Your task to perform on an android device: What's the weather today? Image 0: 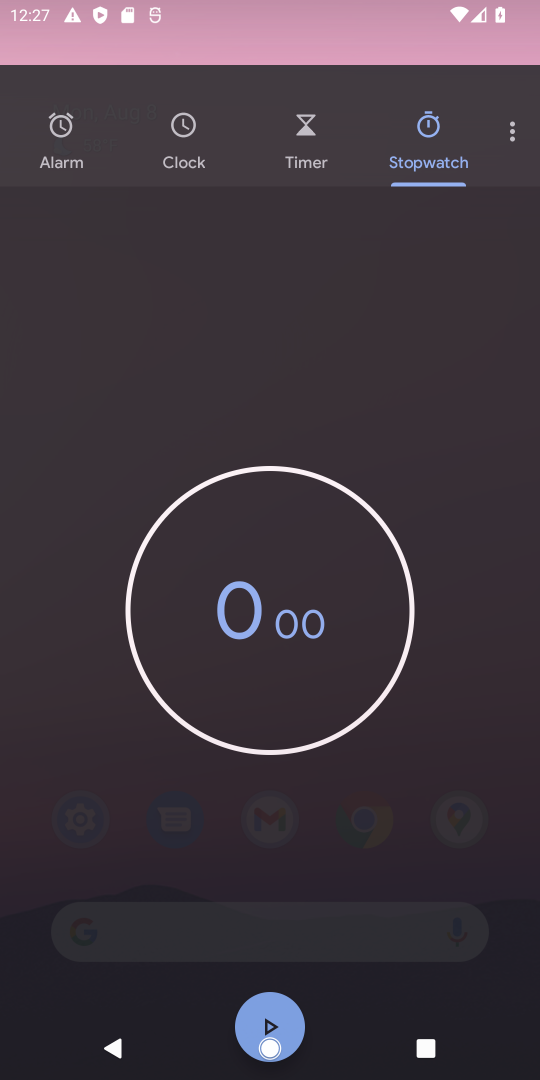
Step 0: press home button
Your task to perform on an android device: What's the weather today? Image 1: 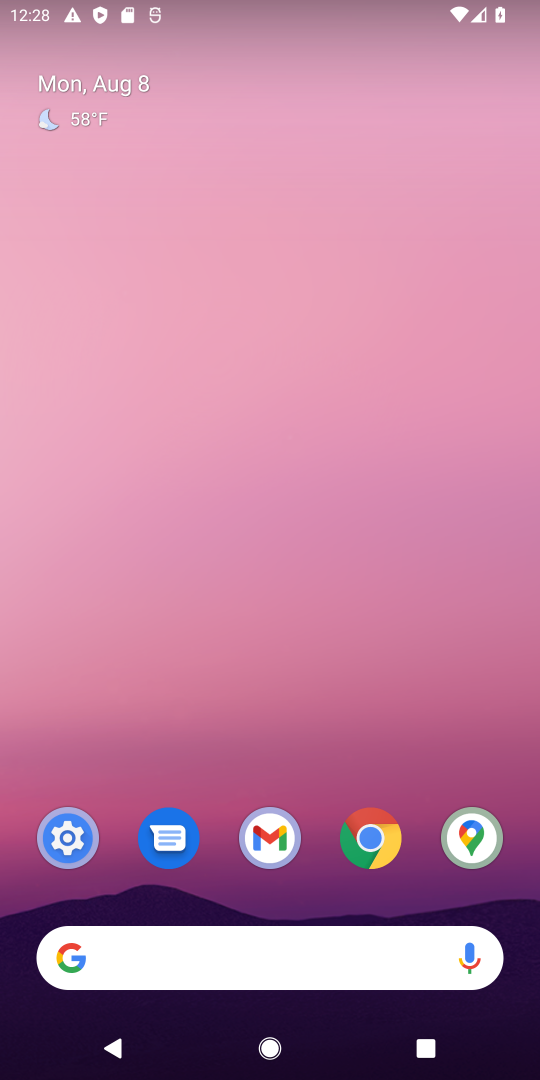
Step 1: click (69, 969)
Your task to perform on an android device: What's the weather today? Image 2: 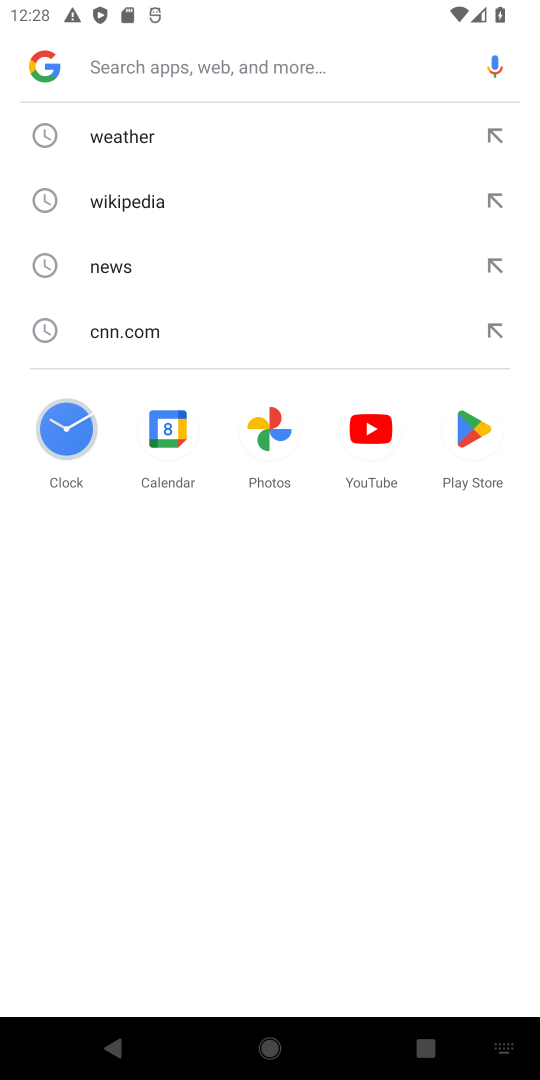
Step 2: type " weather today?"
Your task to perform on an android device: What's the weather today? Image 3: 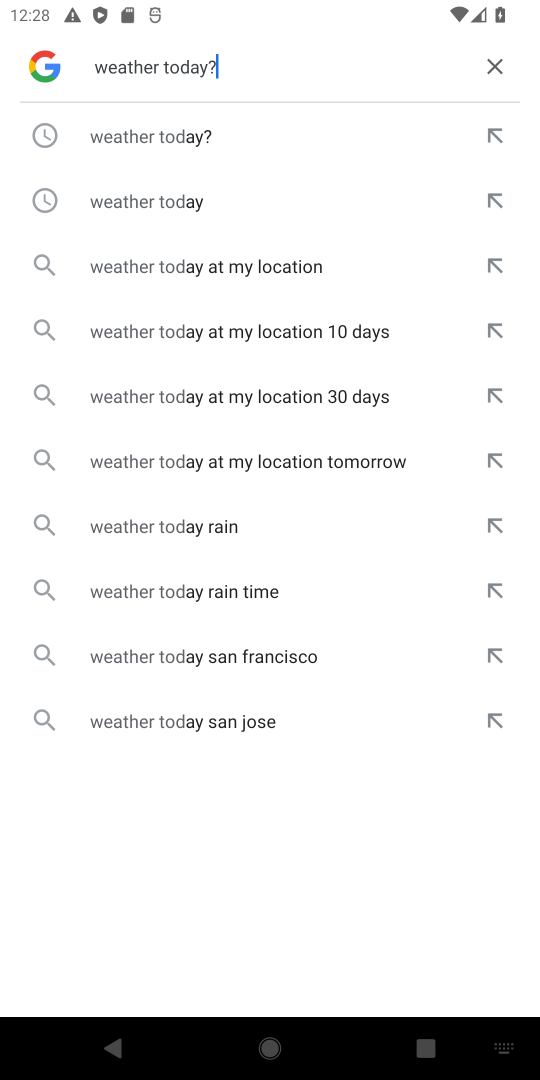
Step 3: press enter
Your task to perform on an android device: What's the weather today? Image 4: 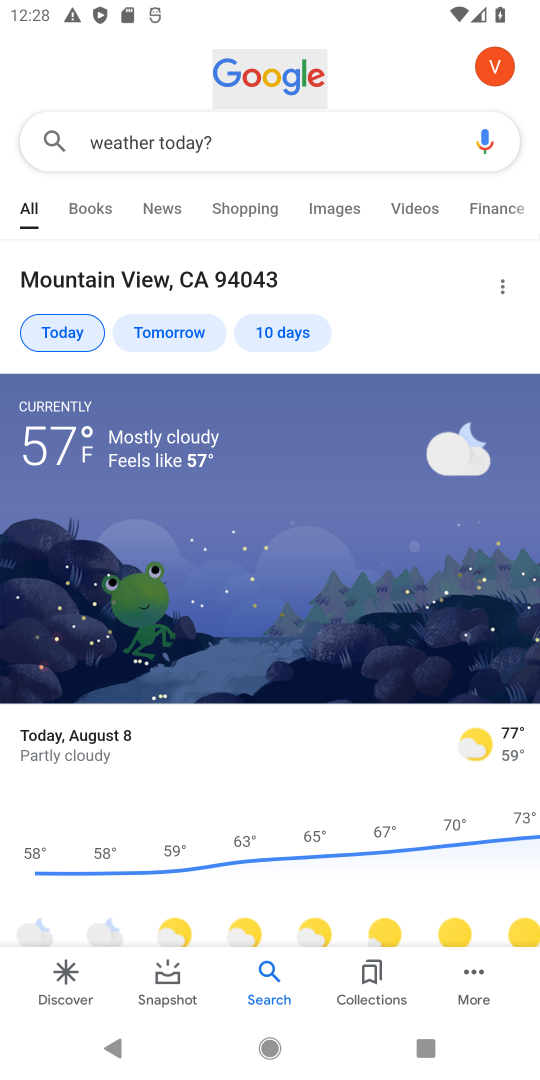
Step 4: task complete